Your task to perform on an android device: change the clock style Image 0: 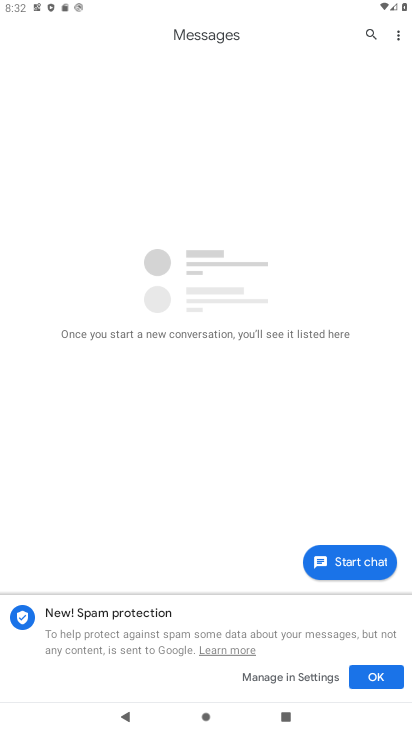
Step 0: press home button
Your task to perform on an android device: change the clock style Image 1: 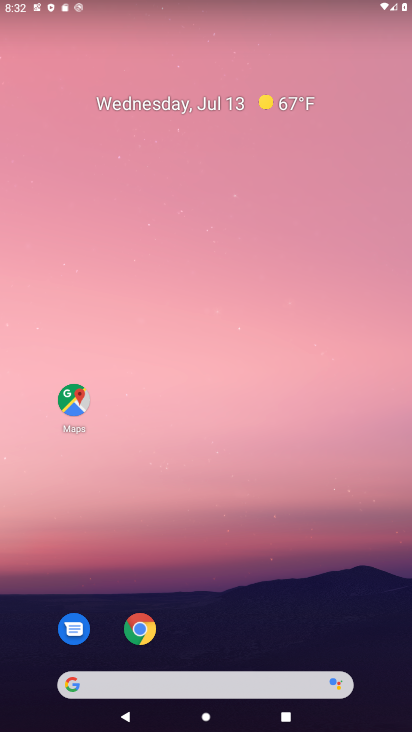
Step 1: drag from (208, 671) to (313, 11)
Your task to perform on an android device: change the clock style Image 2: 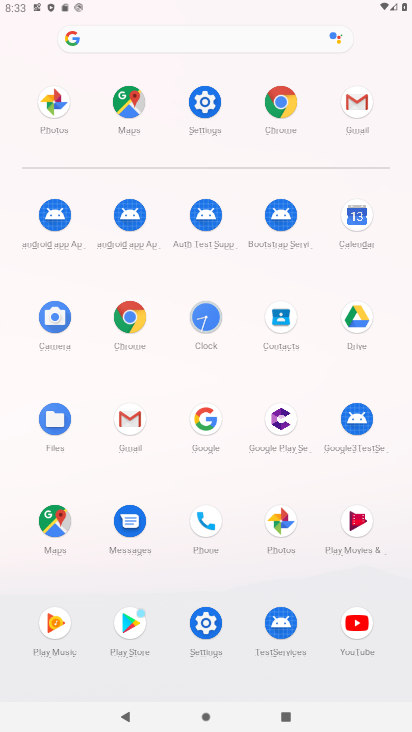
Step 2: click (198, 324)
Your task to perform on an android device: change the clock style Image 3: 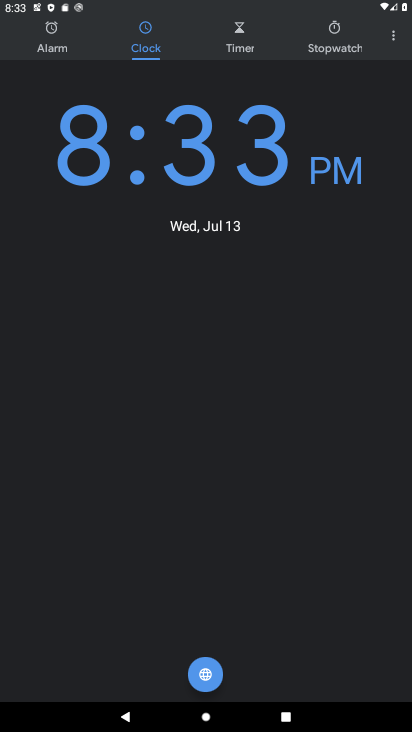
Step 3: click (396, 44)
Your task to perform on an android device: change the clock style Image 4: 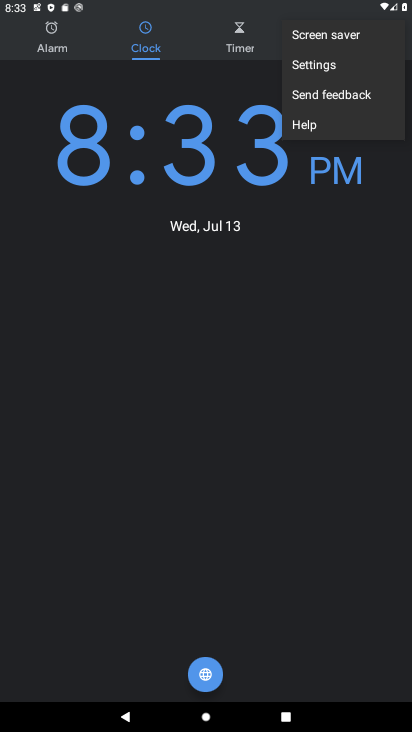
Step 4: click (325, 61)
Your task to perform on an android device: change the clock style Image 5: 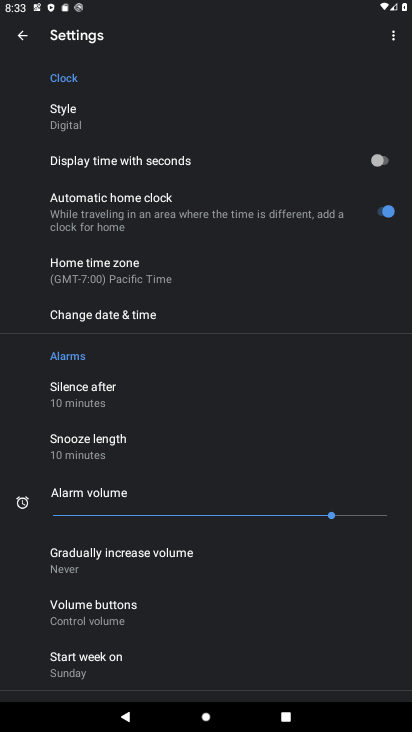
Step 5: click (80, 122)
Your task to perform on an android device: change the clock style Image 6: 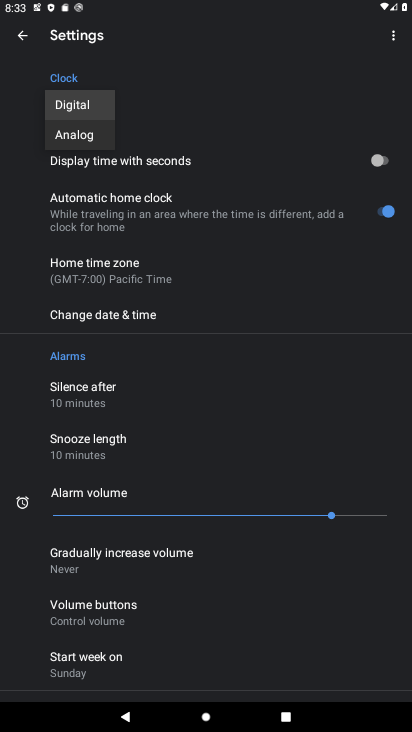
Step 6: click (85, 134)
Your task to perform on an android device: change the clock style Image 7: 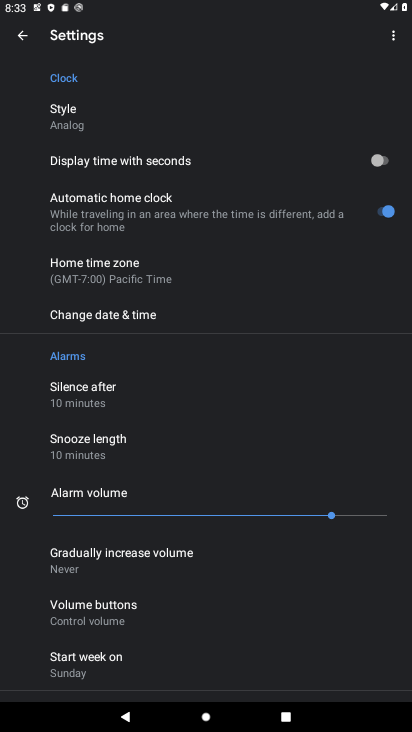
Step 7: task complete